Your task to perform on an android device: check storage Image 0: 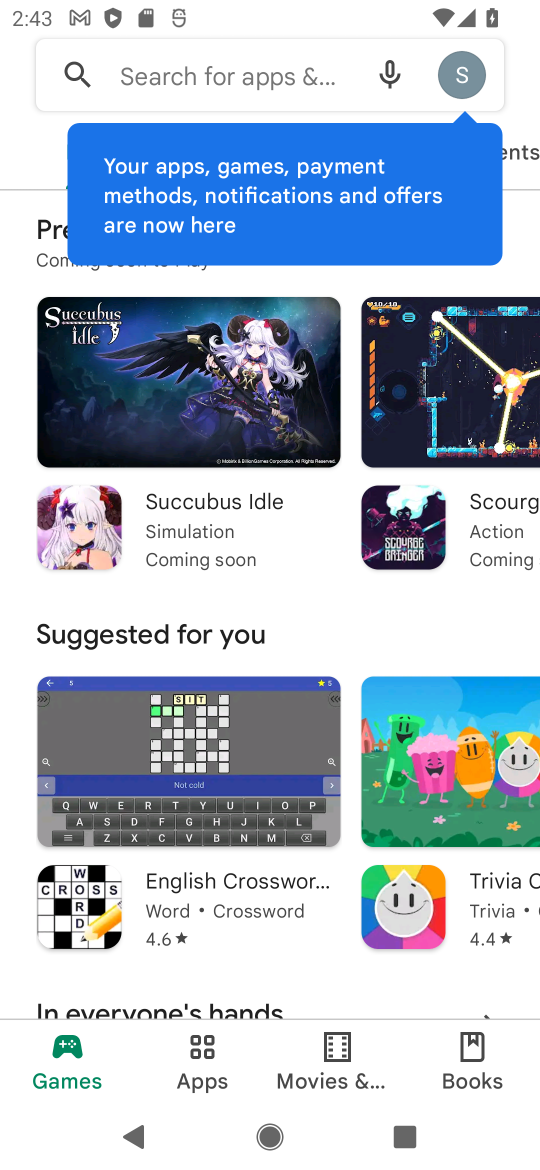
Step 0: press home button
Your task to perform on an android device: check storage Image 1: 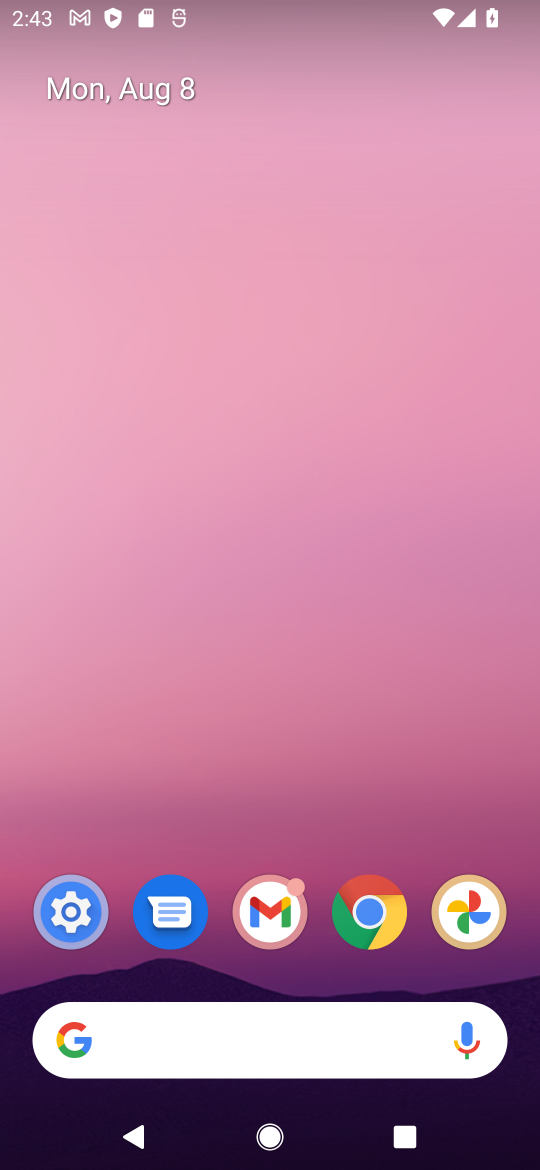
Step 1: click (56, 919)
Your task to perform on an android device: check storage Image 2: 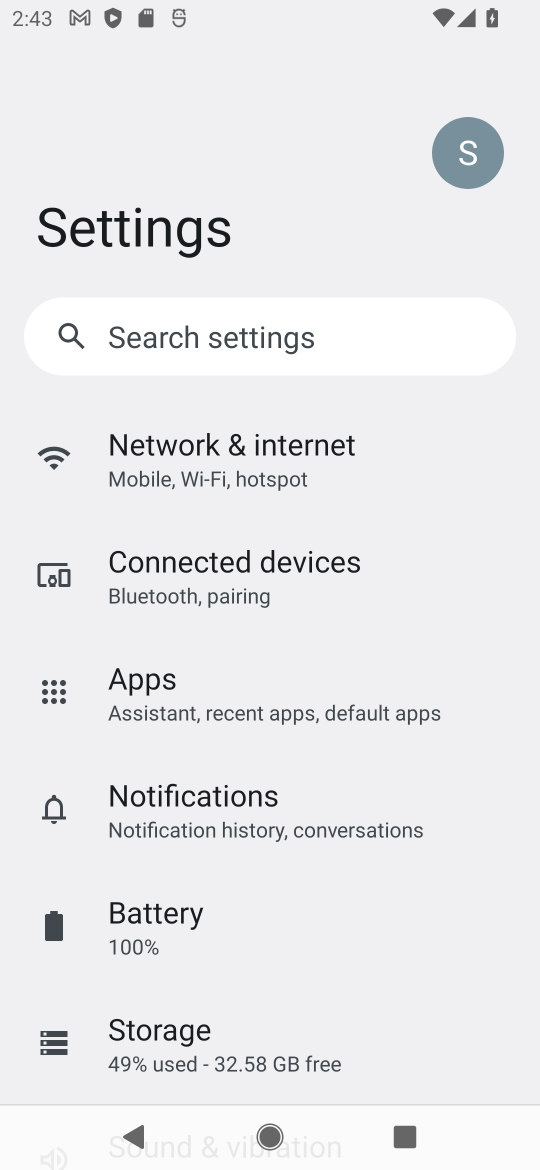
Step 2: click (179, 1059)
Your task to perform on an android device: check storage Image 3: 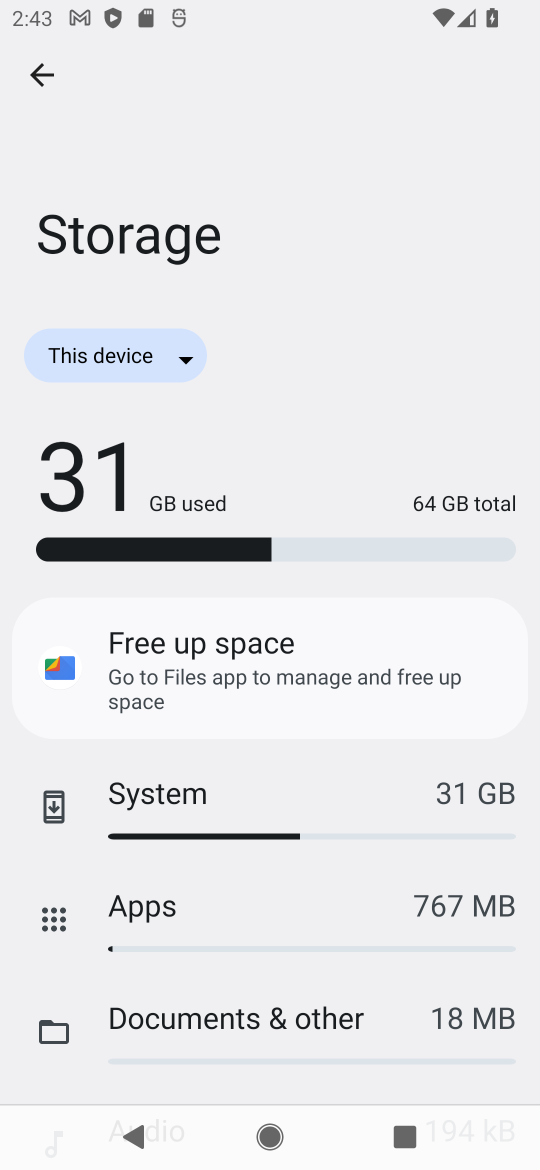
Step 3: task complete